Your task to perform on an android device: add a label to a message in the gmail app Image 0: 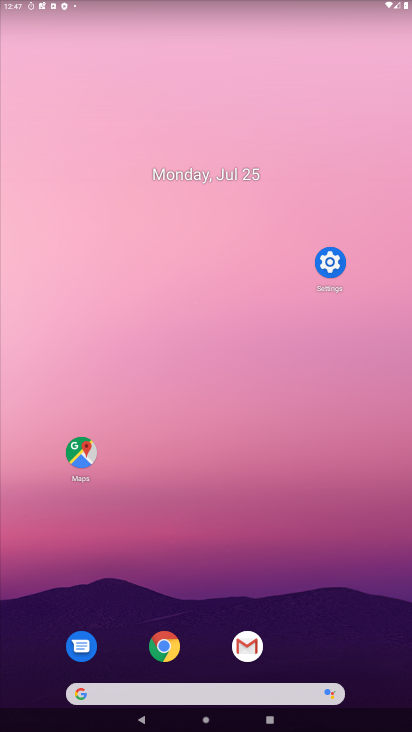
Step 0: click (255, 660)
Your task to perform on an android device: add a label to a message in the gmail app Image 1: 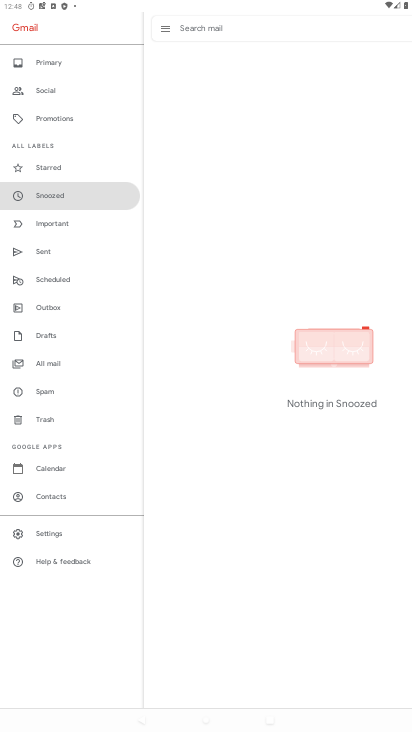
Step 1: click (47, 534)
Your task to perform on an android device: add a label to a message in the gmail app Image 2: 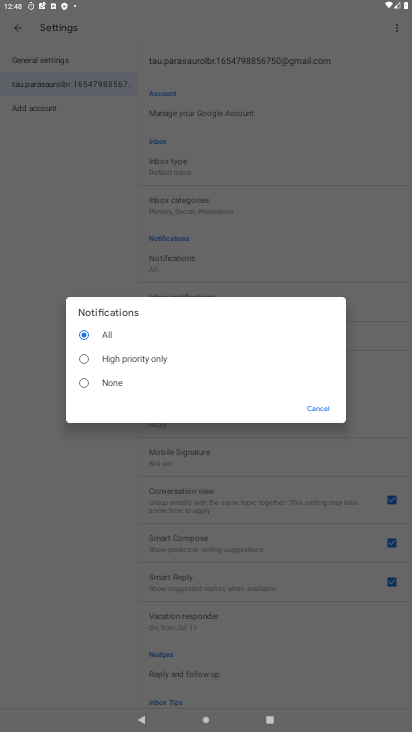
Step 2: click (371, 267)
Your task to perform on an android device: add a label to a message in the gmail app Image 3: 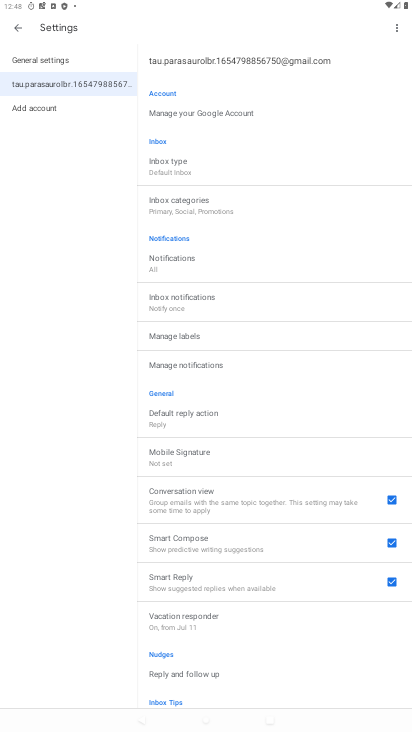
Step 3: click (180, 333)
Your task to perform on an android device: add a label to a message in the gmail app Image 4: 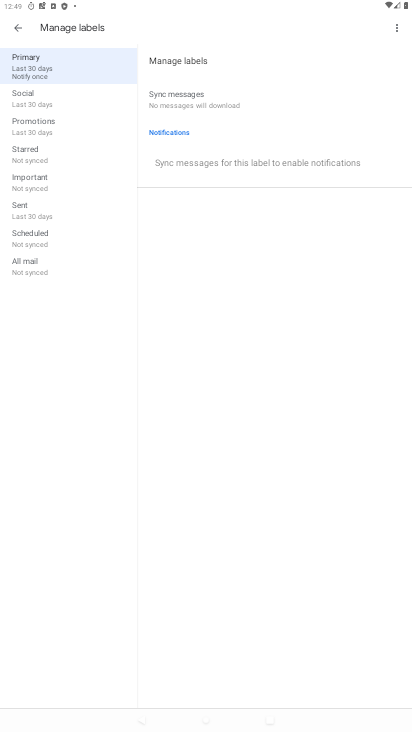
Step 4: task complete